Your task to perform on an android device: Go to Google maps Image 0: 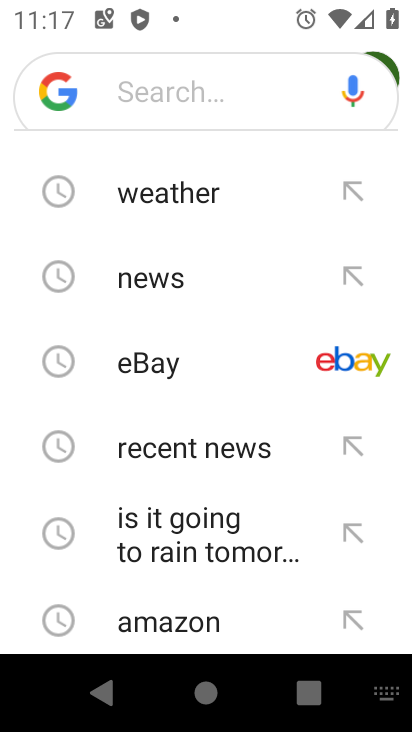
Step 0: press home button
Your task to perform on an android device: Go to Google maps Image 1: 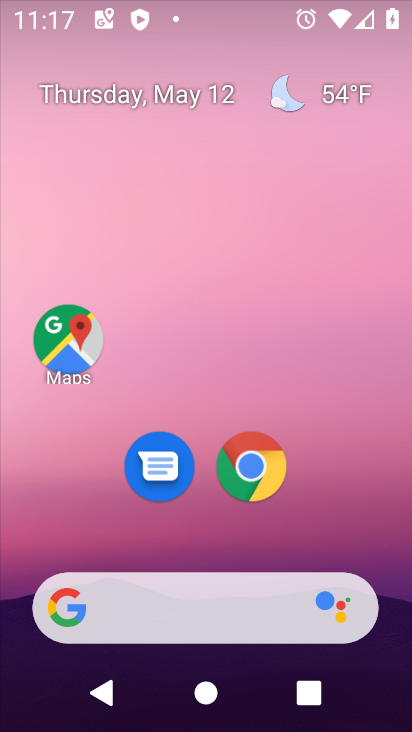
Step 1: drag from (381, 518) to (379, 94)
Your task to perform on an android device: Go to Google maps Image 2: 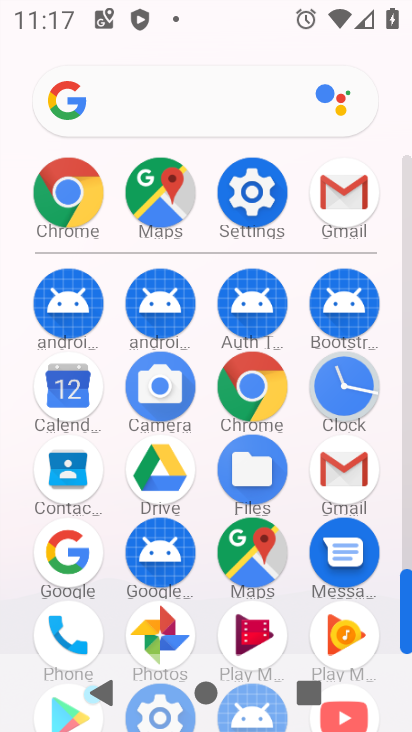
Step 2: click (253, 555)
Your task to perform on an android device: Go to Google maps Image 3: 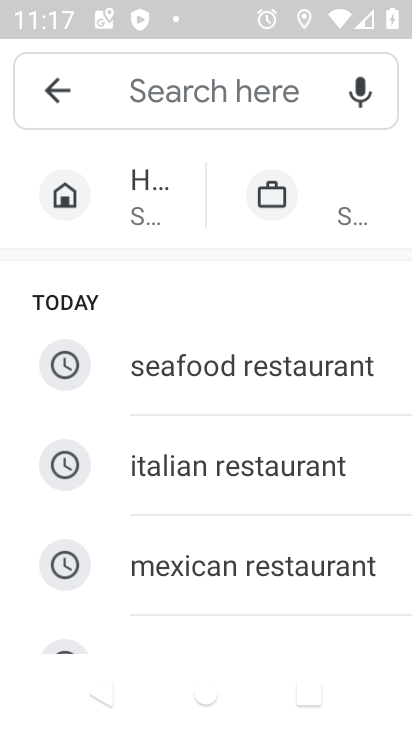
Step 3: task complete